Your task to perform on an android device: turn on translation in the chrome app Image 0: 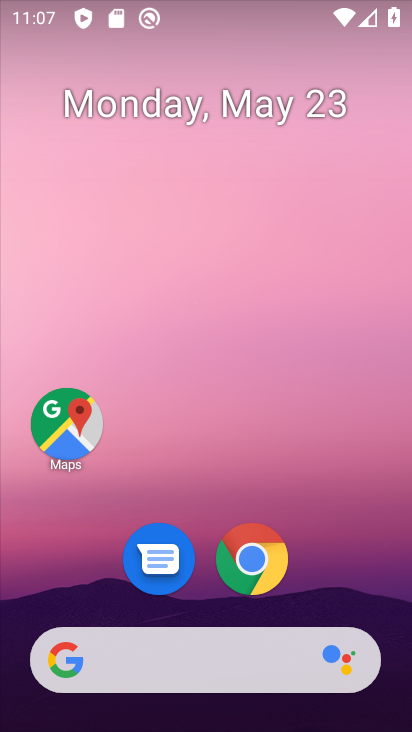
Step 0: click (238, 553)
Your task to perform on an android device: turn on translation in the chrome app Image 1: 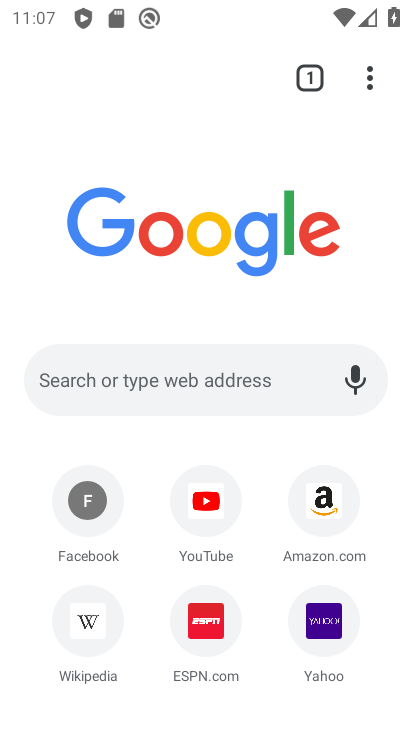
Step 1: click (373, 68)
Your task to perform on an android device: turn on translation in the chrome app Image 2: 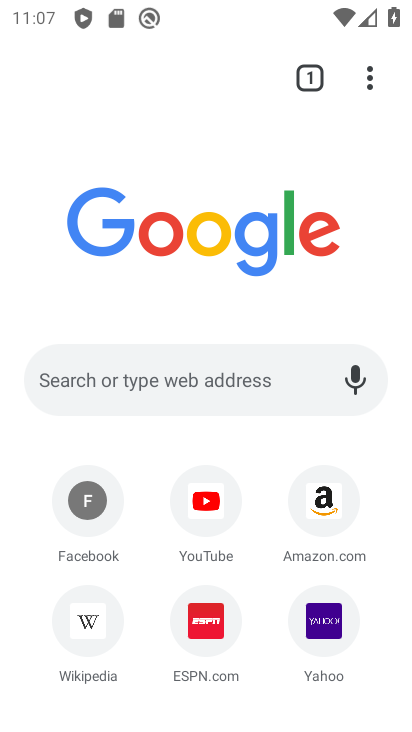
Step 2: click (364, 73)
Your task to perform on an android device: turn on translation in the chrome app Image 3: 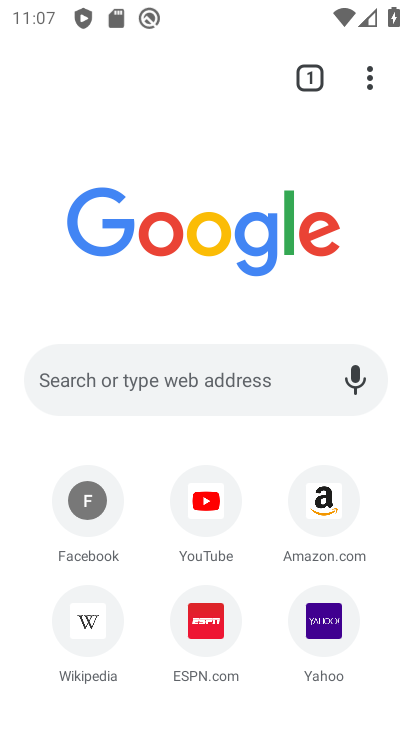
Step 3: click (365, 78)
Your task to perform on an android device: turn on translation in the chrome app Image 4: 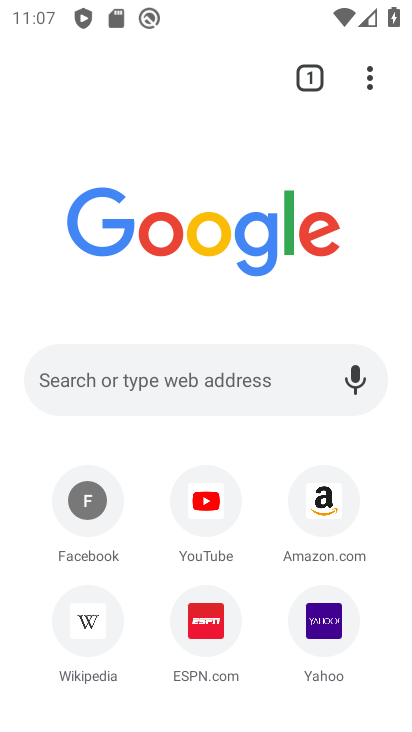
Step 4: click (372, 74)
Your task to perform on an android device: turn on translation in the chrome app Image 5: 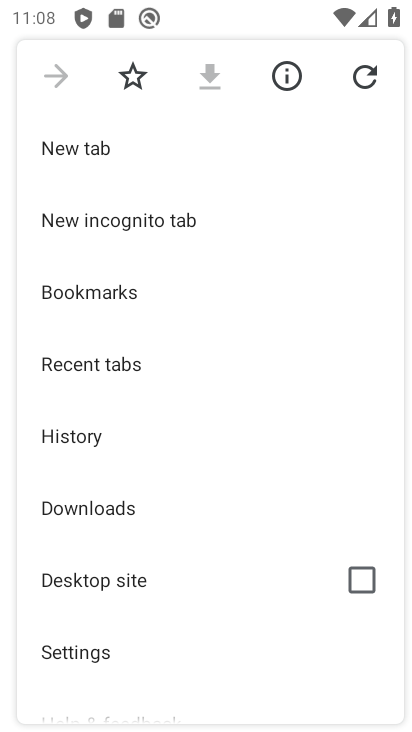
Step 5: click (58, 653)
Your task to perform on an android device: turn on translation in the chrome app Image 6: 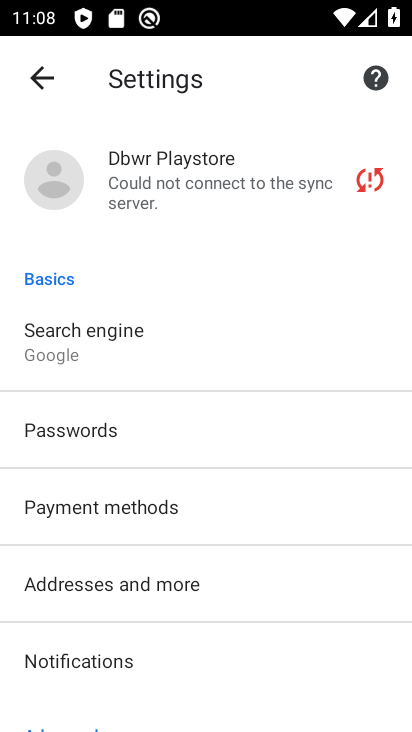
Step 6: drag from (229, 673) to (277, 380)
Your task to perform on an android device: turn on translation in the chrome app Image 7: 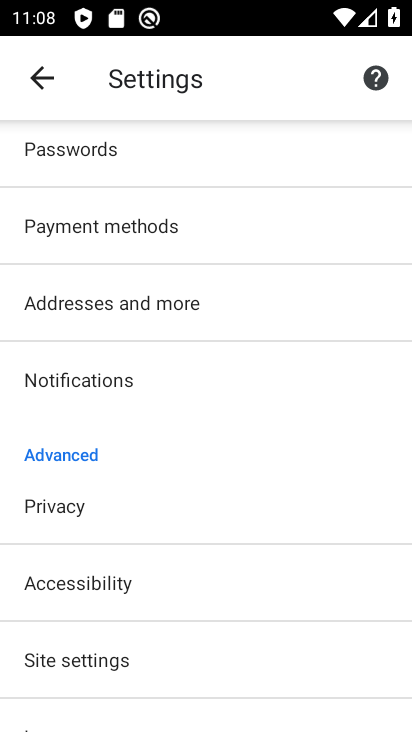
Step 7: drag from (210, 687) to (215, 376)
Your task to perform on an android device: turn on translation in the chrome app Image 8: 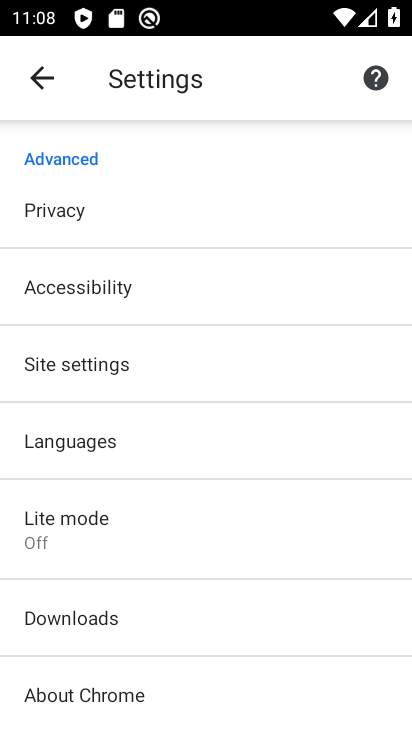
Step 8: click (81, 448)
Your task to perform on an android device: turn on translation in the chrome app Image 9: 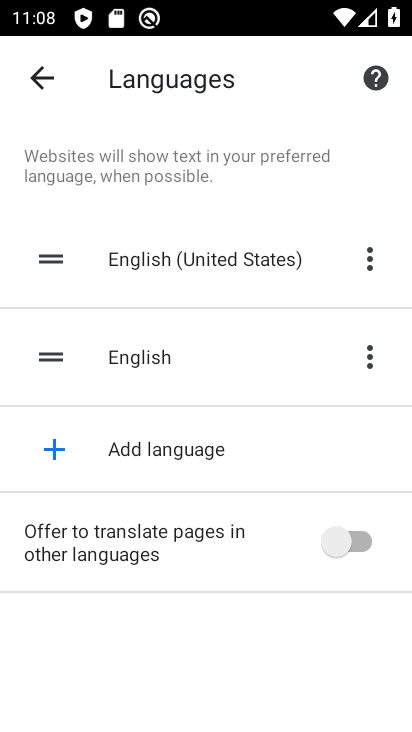
Step 9: click (356, 539)
Your task to perform on an android device: turn on translation in the chrome app Image 10: 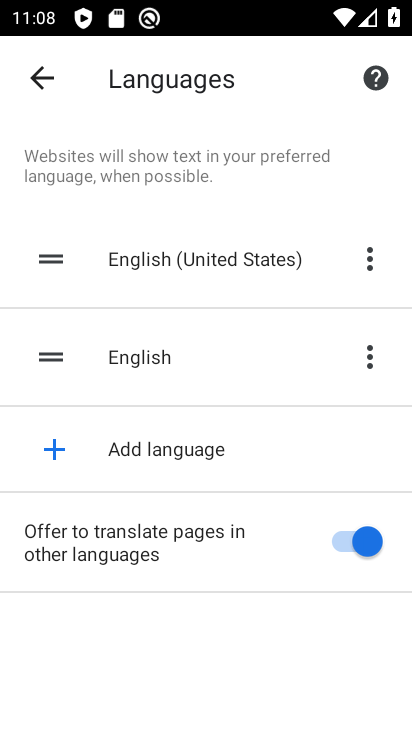
Step 10: task complete